Your task to perform on an android device: Search for seafood restaurants on Google Maps Image 0: 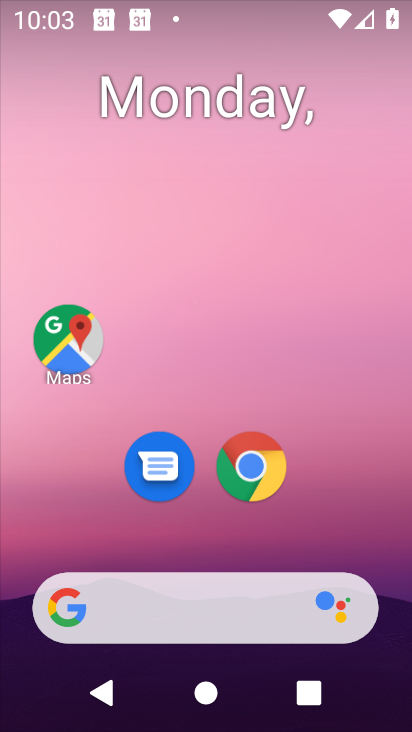
Step 0: click (53, 336)
Your task to perform on an android device: Search for seafood restaurants on Google Maps Image 1: 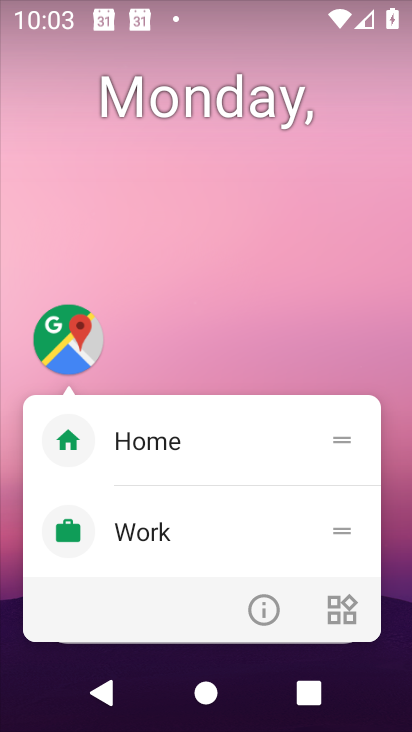
Step 1: click (74, 336)
Your task to perform on an android device: Search for seafood restaurants on Google Maps Image 2: 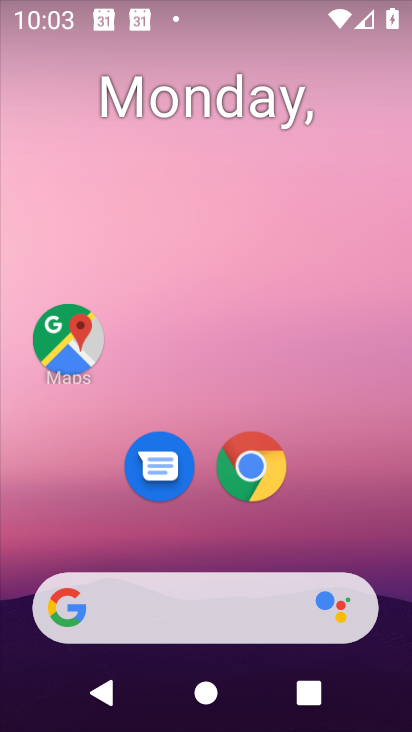
Step 2: click (74, 336)
Your task to perform on an android device: Search for seafood restaurants on Google Maps Image 3: 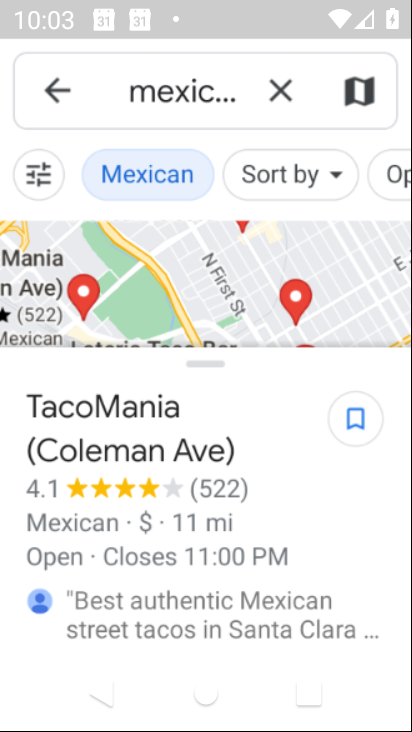
Step 3: click (76, 336)
Your task to perform on an android device: Search for seafood restaurants on Google Maps Image 4: 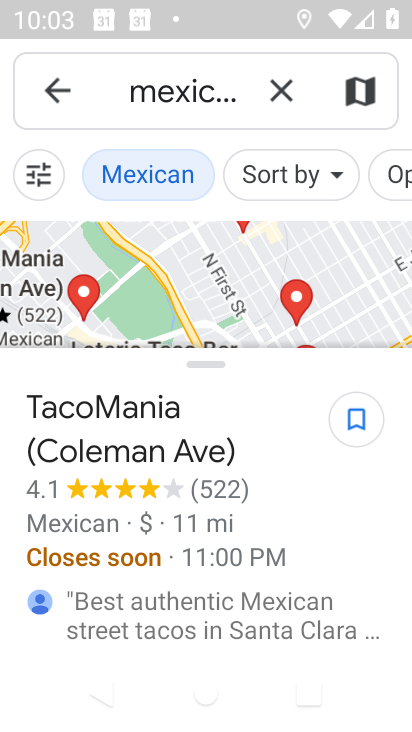
Step 4: type "seafood restaurants"
Your task to perform on an android device: Search for seafood restaurants on Google Maps Image 5: 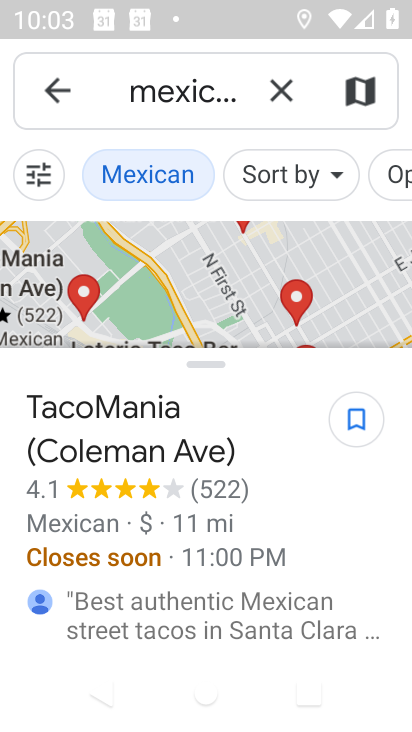
Step 5: click (280, 80)
Your task to perform on an android device: Search for seafood restaurants on Google Maps Image 6: 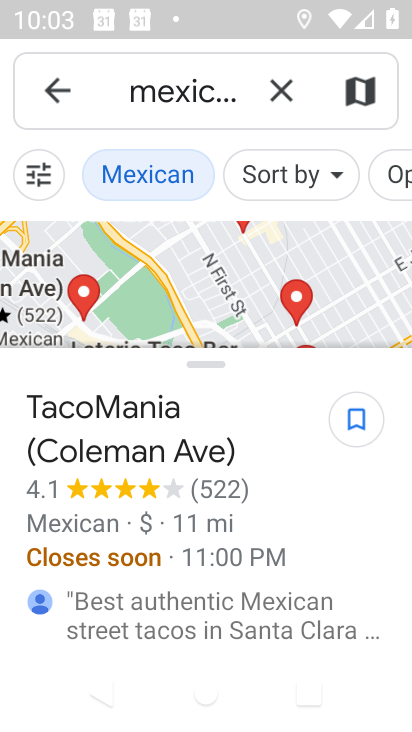
Step 6: click (280, 80)
Your task to perform on an android device: Search for seafood restaurants on Google Maps Image 7: 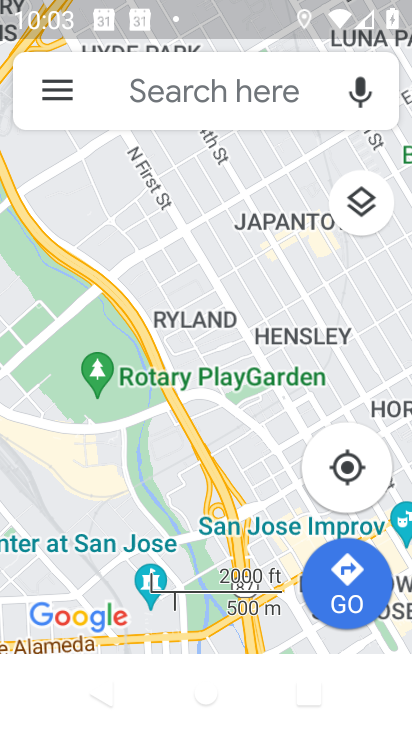
Step 7: click (127, 80)
Your task to perform on an android device: Search for seafood restaurants on Google Maps Image 8: 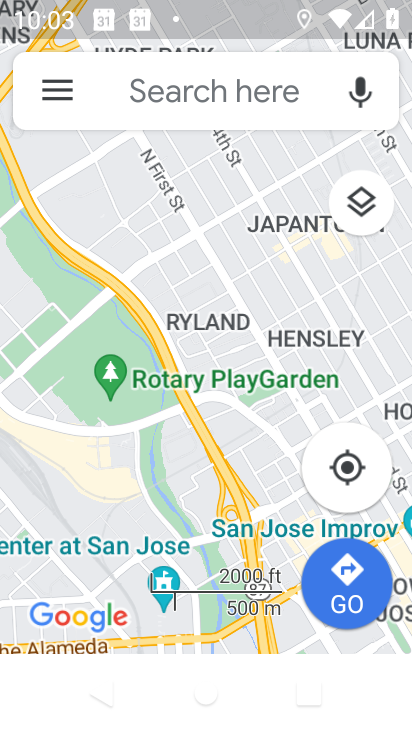
Step 8: click (152, 90)
Your task to perform on an android device: Search for seafood restaurants on Google Maps Image 9: 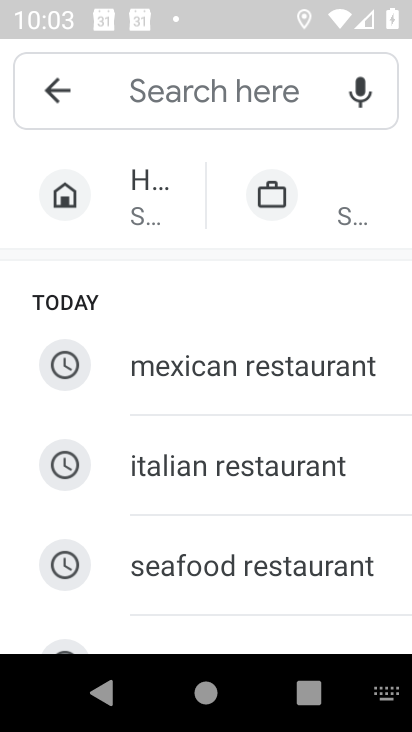
Step 9: click (257, 365)
Your task to perform on an android device: Search for seafood restaurants on Google Maps Image 10: 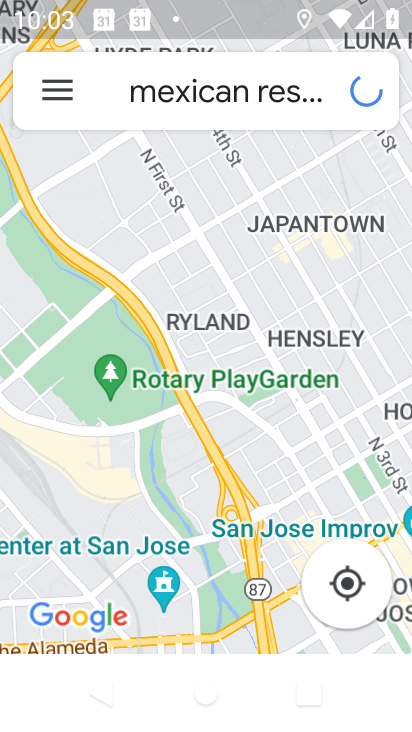
Step 10: click (258, 365)
Your task to perform on an android device: Search for seafood restaurants on Google Maps Image 11: 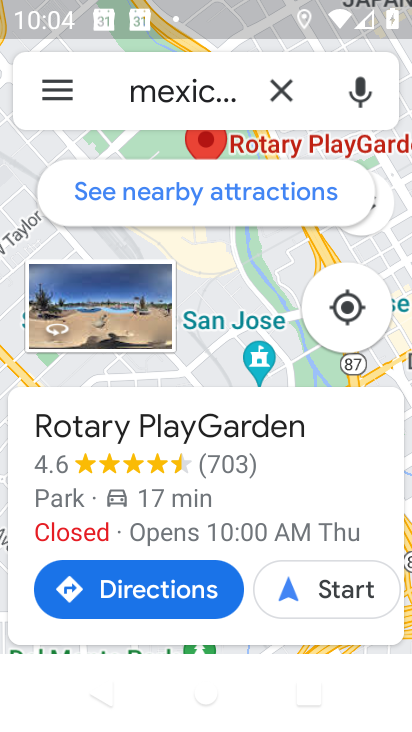
Step 11: click (273, 86)
Your task to perform on an android device: Search for seafood restaurants on Google Maps Image 12: 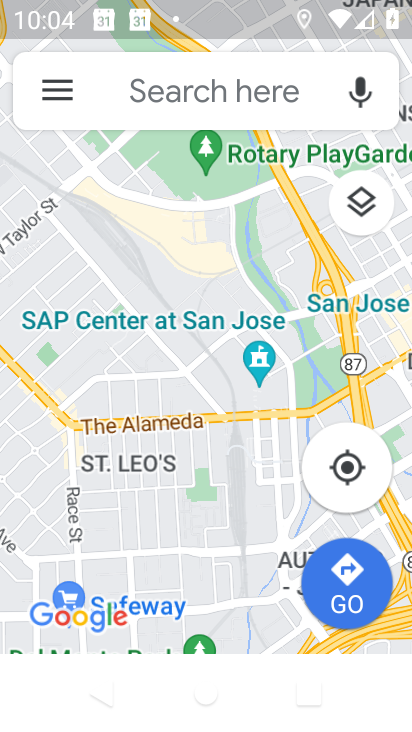
Step 12: click (134, 88)
Your task to perform on an android device: Search for seafood restaurants on Google Maps Image 13: 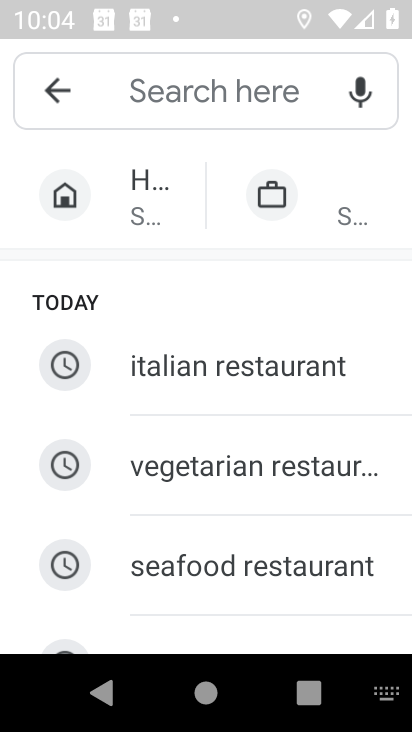
Step 13: click (229, 572)
Your task to perform on an android device: Search for seafood restaurants on Google Maps Image 14: 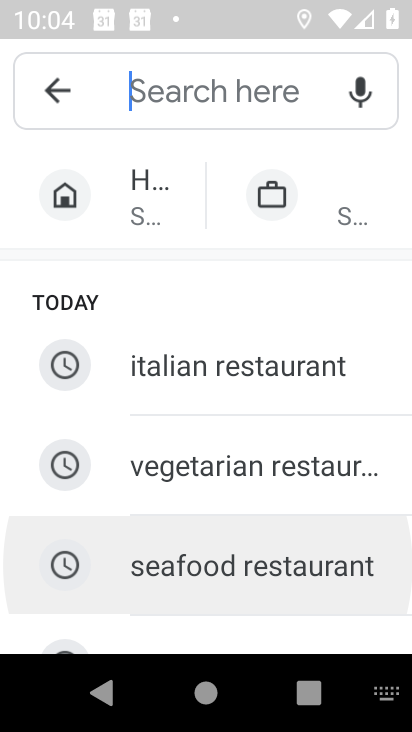
Step 14: click (229, 572)
Your task to perform on an android device: Search for seafood restaurants on Google Maps Image 15: 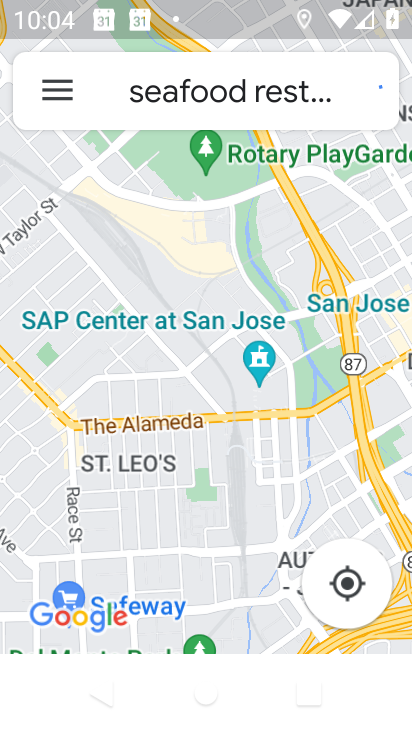
Step 15: task complete